Your task to perform on an android device: Show me the alarms in the clock app Image 0: 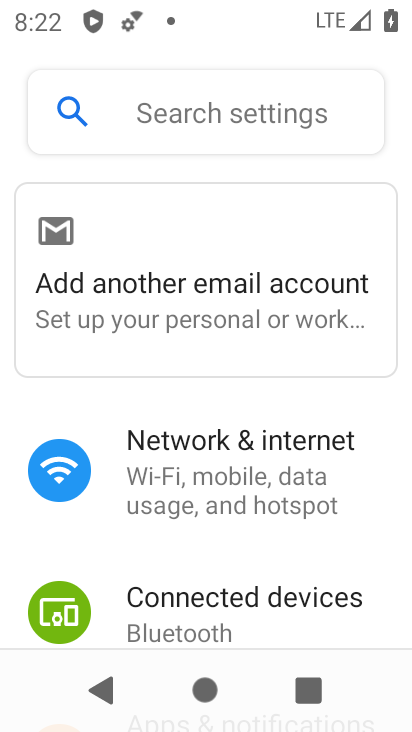
Step 0: press home button
Your task to perform on an android device: Show me the alarms in the clock app Image 1: 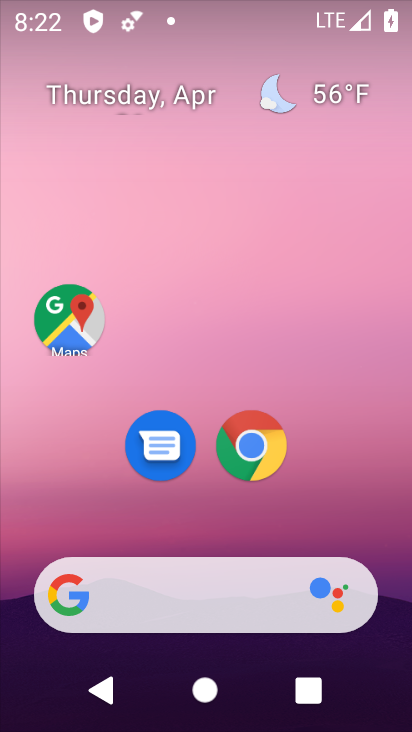
Step 1: drag from (365, 536) to (346, 0)
Your task to perform on an android device: Show me the alarms in the clock app Image 2: 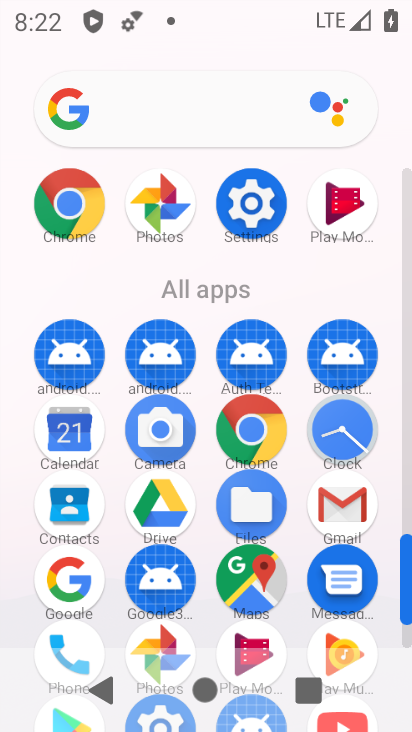
Step 2: click (349, 429)
Your task to perform on an android device: Show me the alarms in the clock app Image 3: 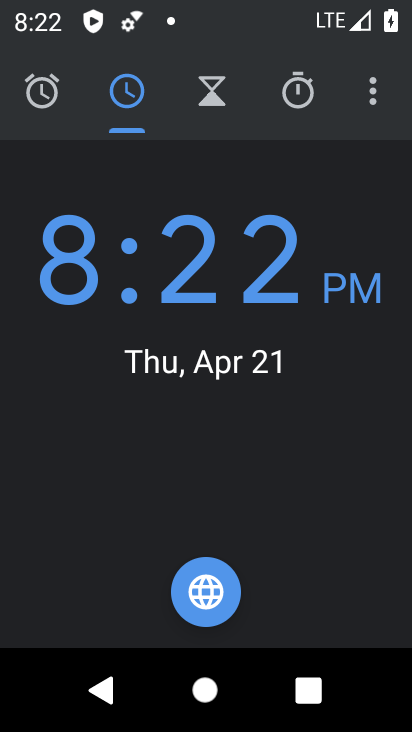
Step 3: click (56, 96)
Your task to perform on an android device: Show me the alarms in the clock app Image 4: 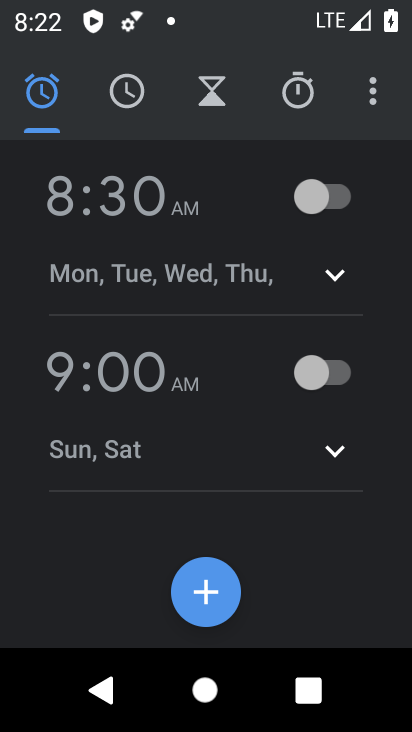
Step 4: task complete